Your task to perform on an android device: turn on wifi Image 0: 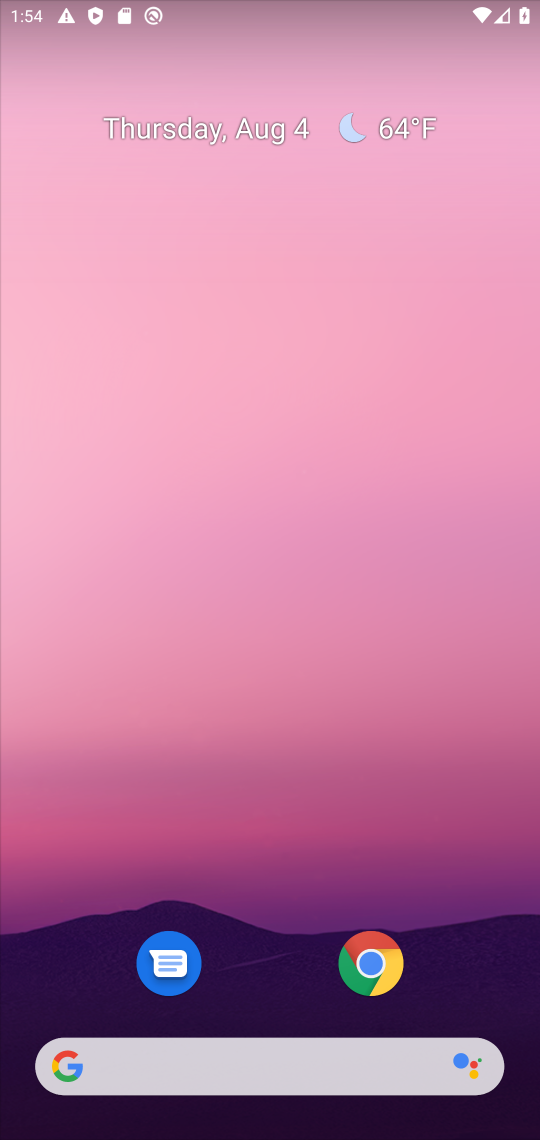
Step 0: drag from (224, 1053) to (199, 337)
Your task to perform on an android device: turn on wifi Image 1: 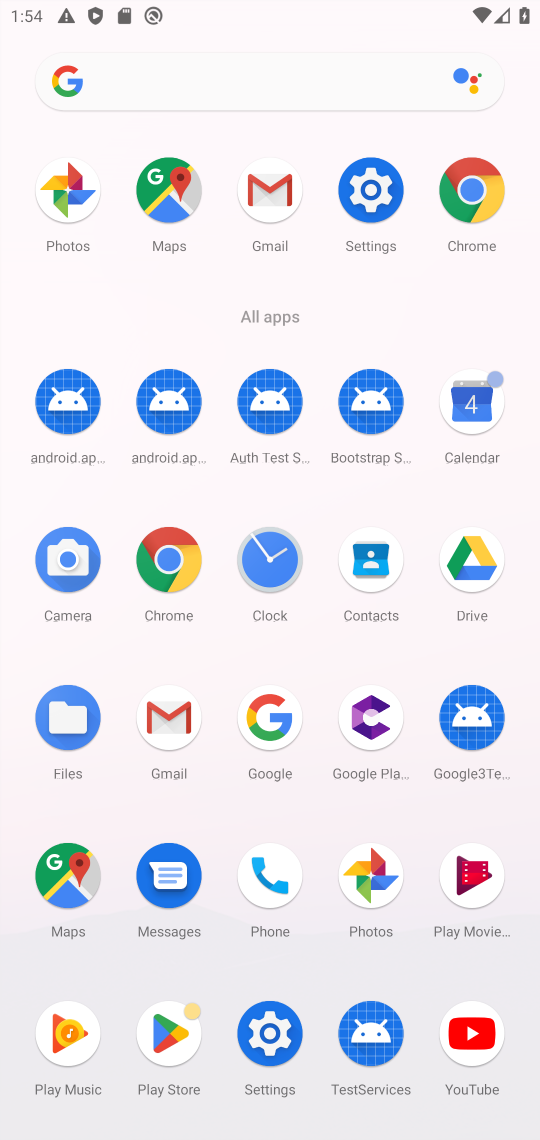
Step 1: click (371, 207)
Your task to perform on an android device: turn on wifi Image 2: 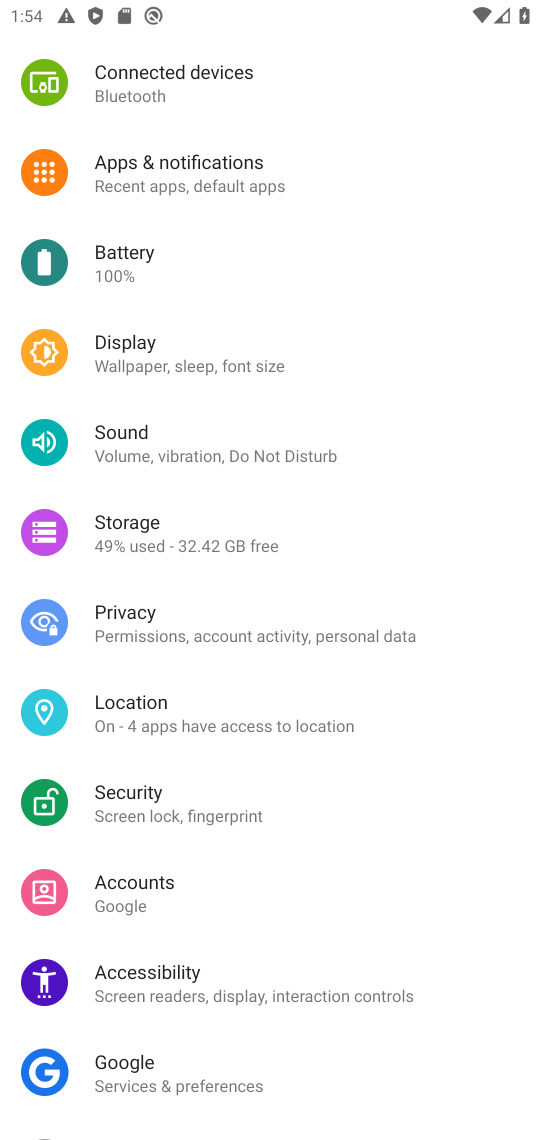
Step 2: drag from (176, 264) to (189, 1129)
Your task to perform on an android device: turn on wifi Image 3: 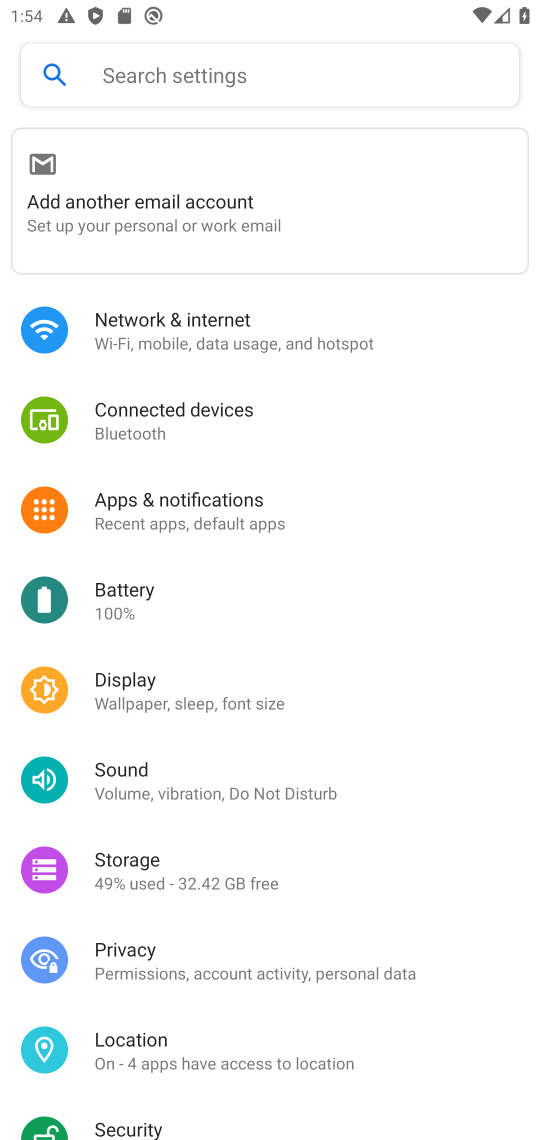
Step 3: click (163, 332)
Your task to perform on an android device: turn on wifi Image 4: 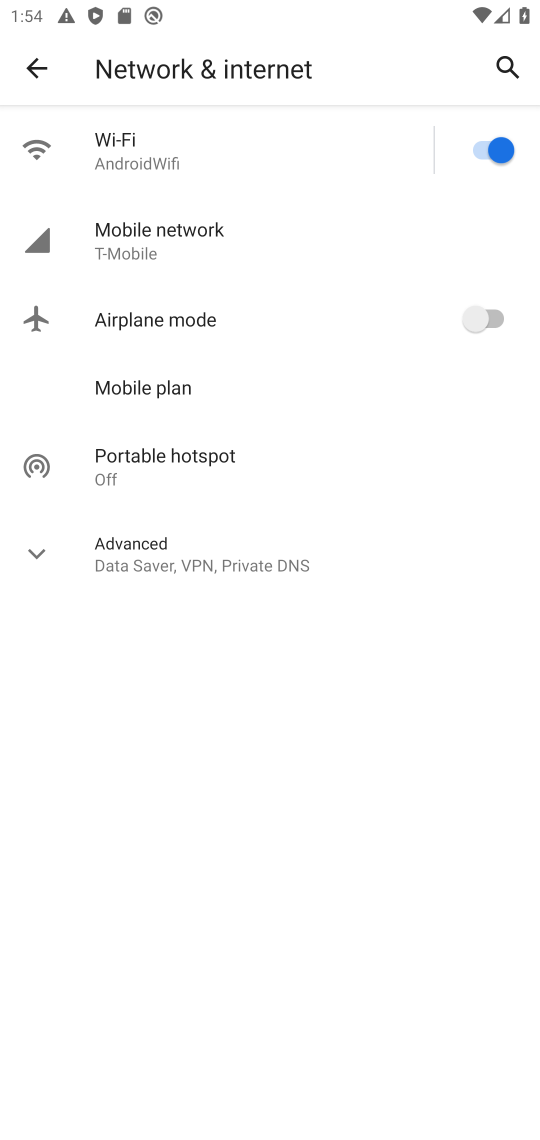
Step 4: task complete